Your task to perform on an android device: visit the assistant section in the google photos Image 0: 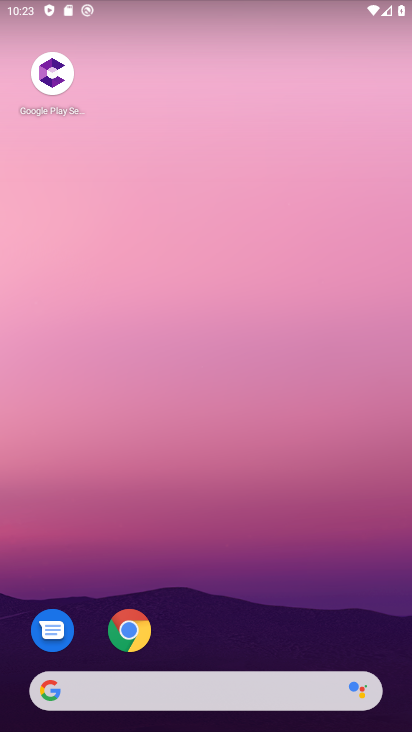
Step 0: drag from (48, 530) to (264, 62)
Your task to perform on an android device: visit the assistant section in the google photos Image 1: 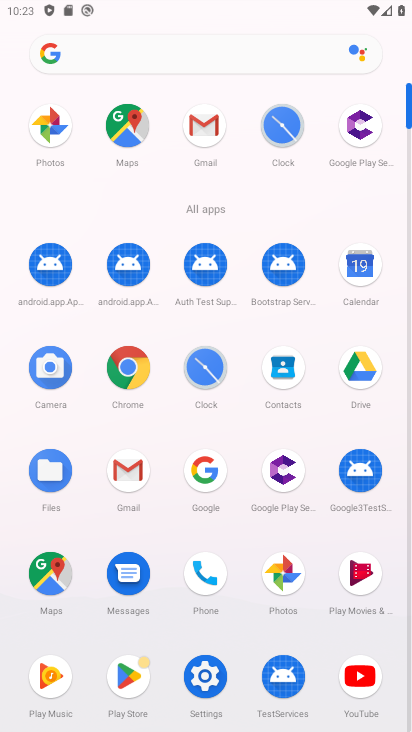
Step 1: click (282, 575)
Your task to perform on an android device: visit the assistant section in the google photos Image 2: 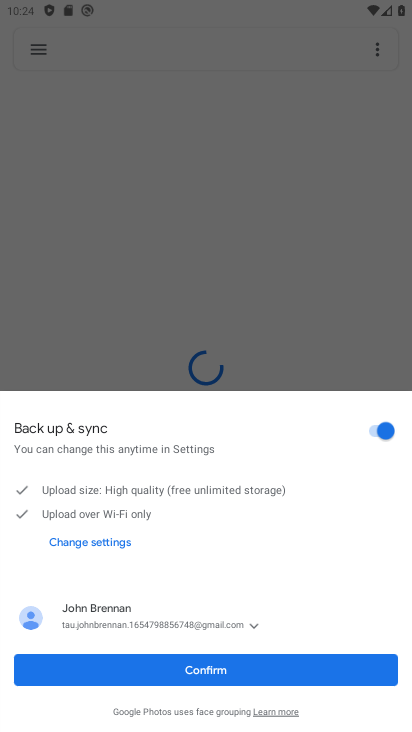
Step 2: click (234, 665)
Your task to perform on an android device: visit the assistant section in the google photos Image 3: 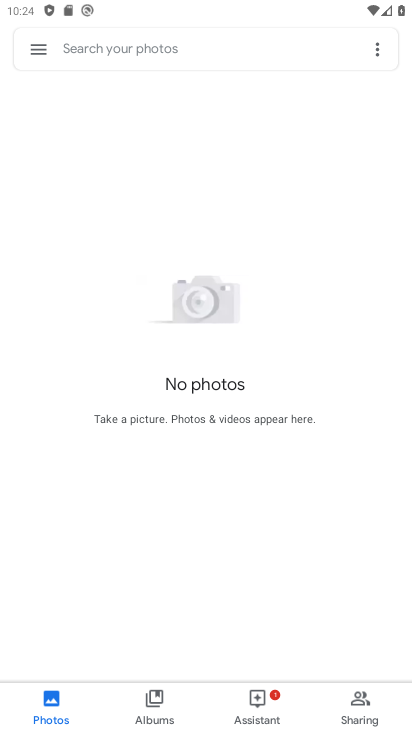
Step 3: click (267, 702)
Your task to perform on an android device: visit the assistant section in the google photos Image 4: 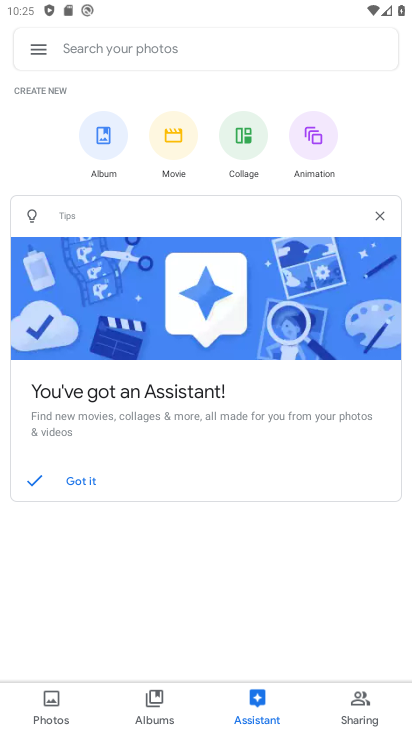
Step 4: task complete